Your task to perform on an android device: empty trash in the gmail app Image 0: 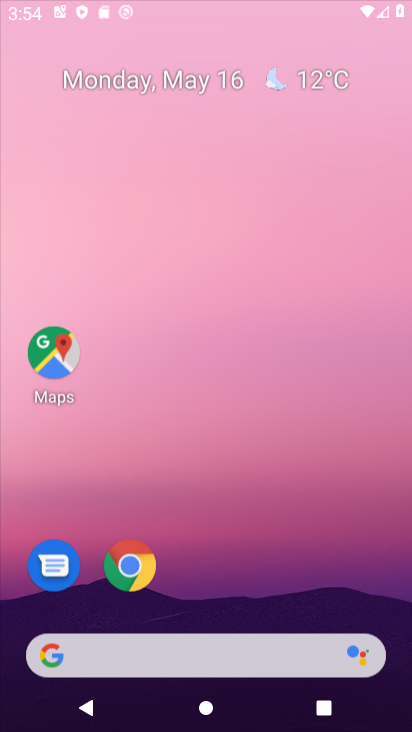
Step 0: drag from (248, 228) to (248, 22)
Your task to perform on an android device: empty trash in the gmail app Image 1: 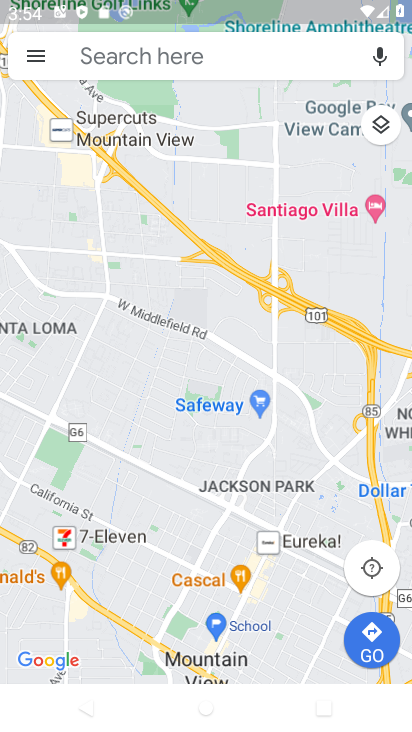
Step 1: press back button
Your task to perform on an android device: empty trash in the gmail app Image 2: 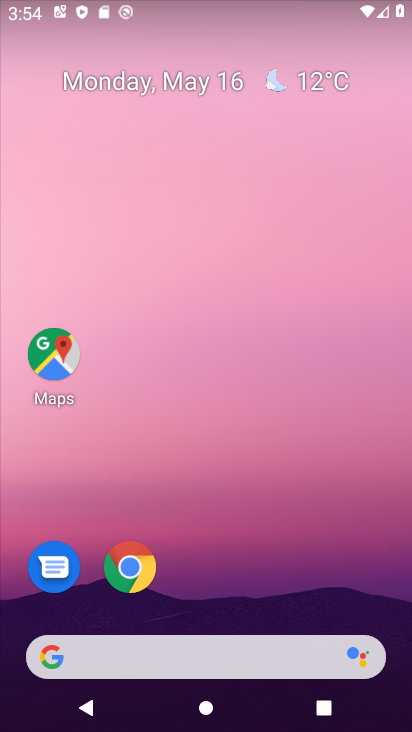
Step 2: drag from (184, 589) to (187, 17)
Your task to perform on an android device: empty trash in the gmail app Image 3: 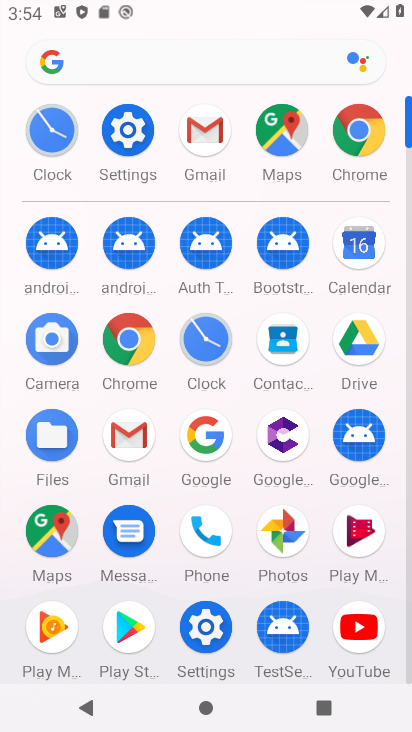
Step 3: click (202, 123)
Your task to perform on an android device: empty trash in the gmail app Image 4: 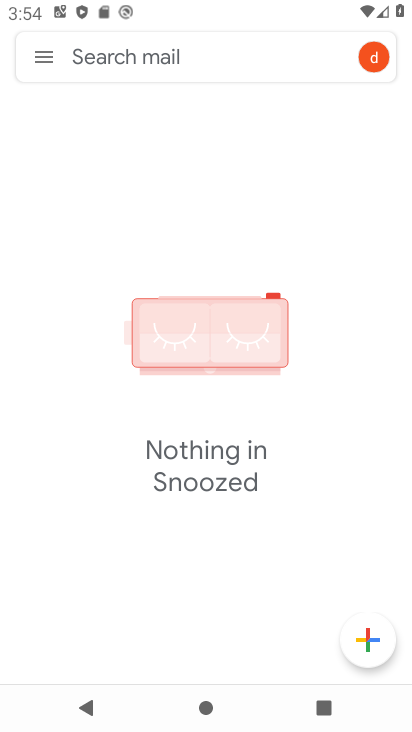
Step 4: click (59, 51)
Your task to perform on an android device: empty trash in the gmail app Image 5: 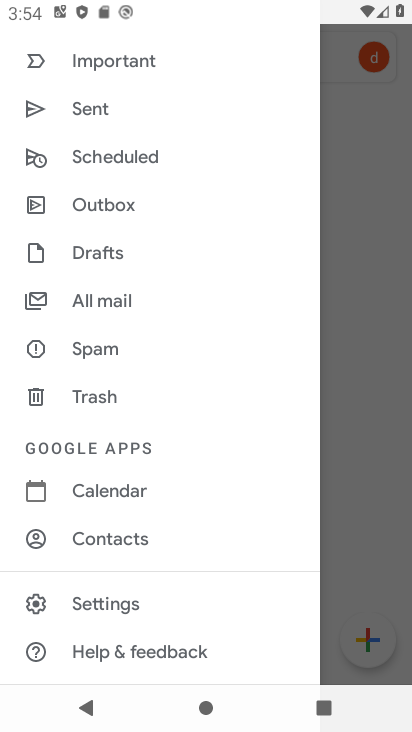
Step 5: click (119, 387)
Your task to perform on an android device: empty trash in the gmail app Image 6: 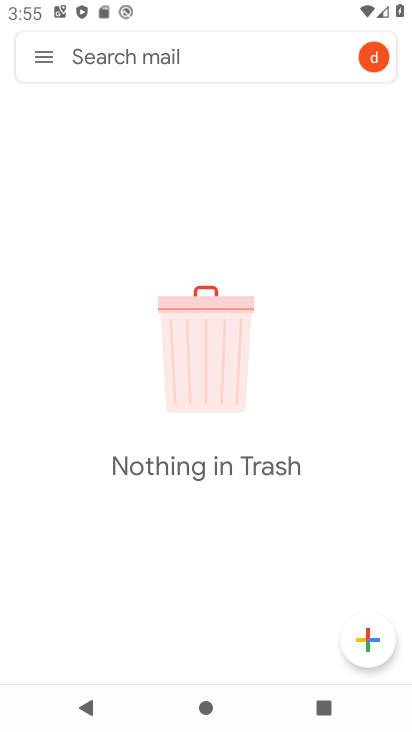
Step 6: task complete